Your task to perform on an android device: Open Maps and search for coffee Image 0: 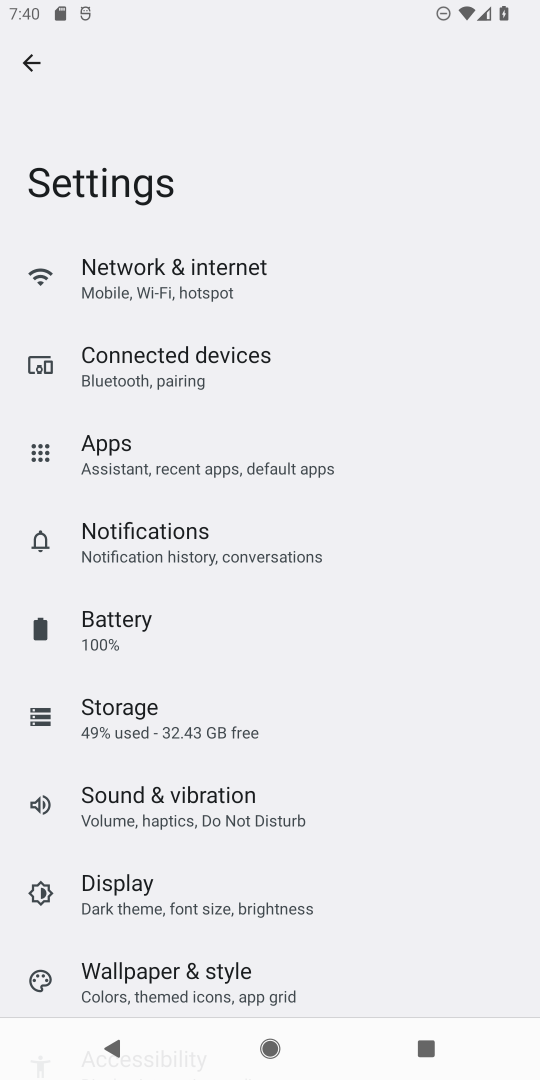
Step 0: press home button
Your task to perform on an android device: Open Maps and search for coffee Image 1: 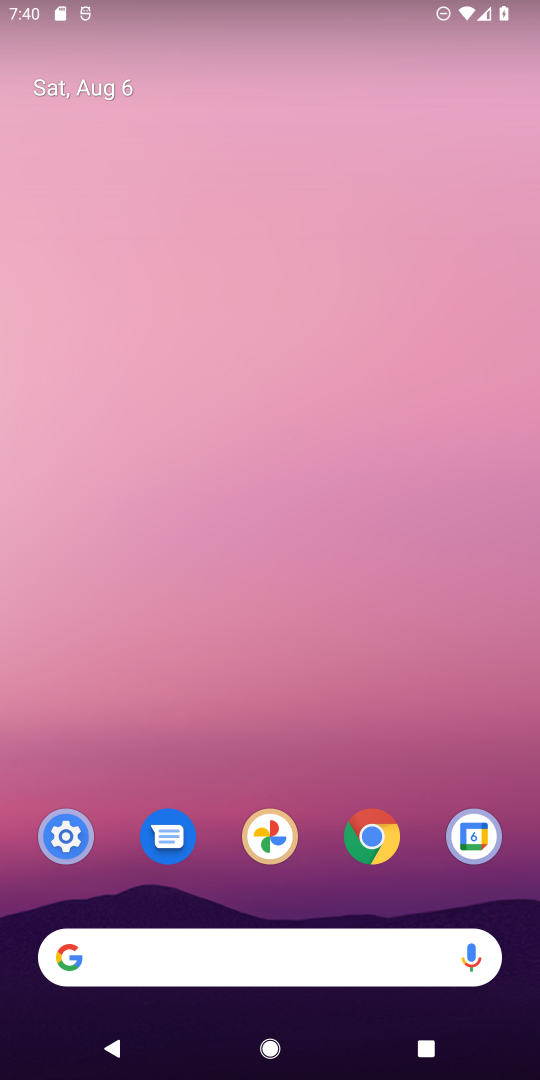
Step 1: drag from (255, 961) to (242, 272)
Your task to perform on an android device: Open Maps and search for coffee Image 2: 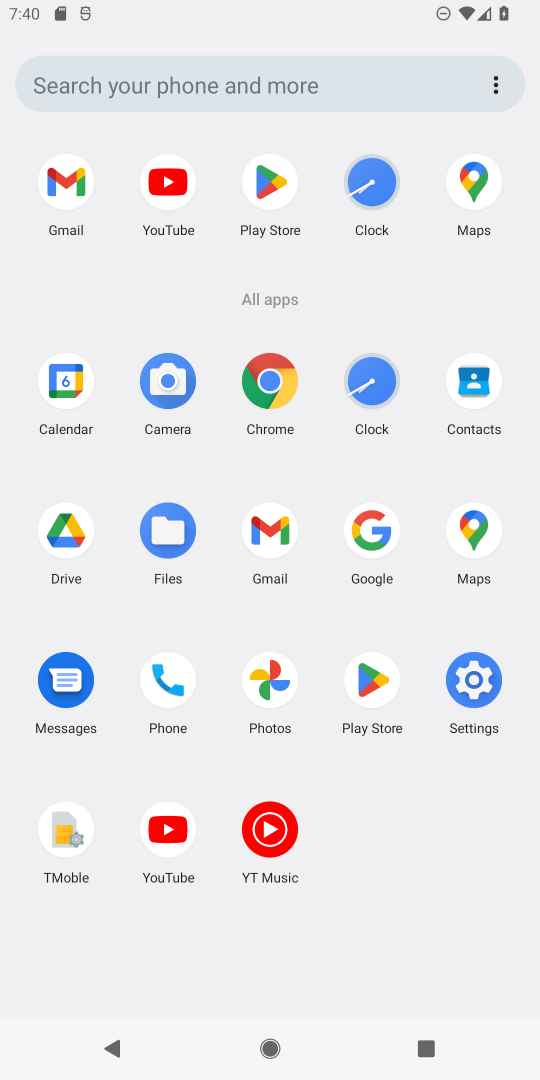
Step 2: click (470, 192)
Your task to perform on an android device: Open Maps and search for coffee Image 3: 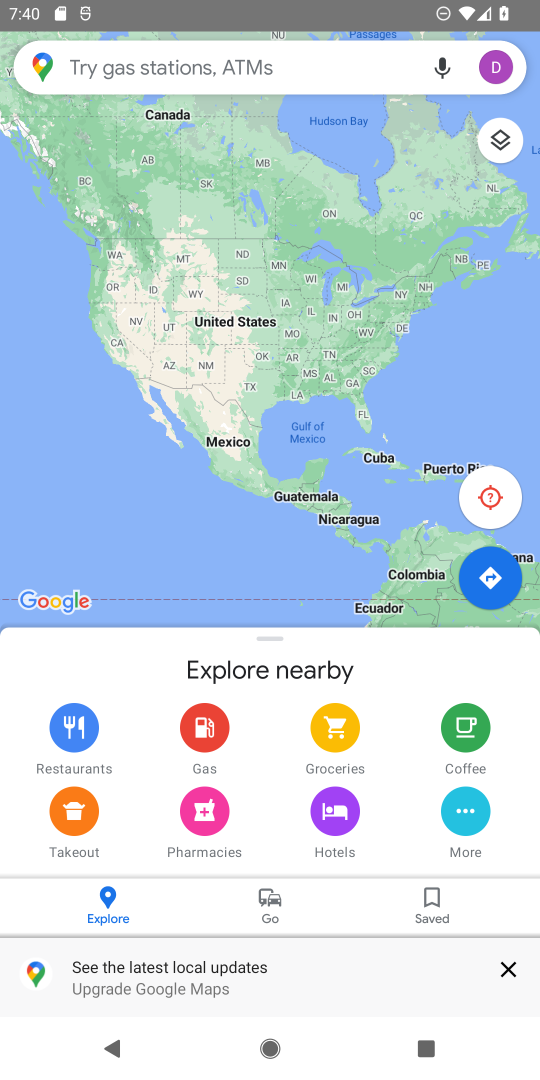
Step 3: click (278, 65)
Your task to perform on an android device: Open Maps and search for coffee Image 4: 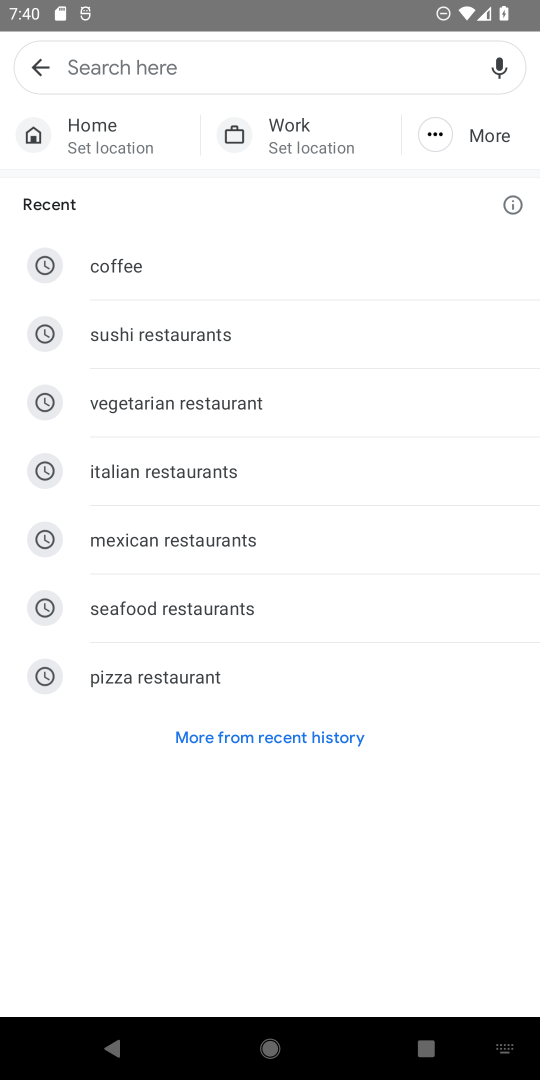
Step 4: click (151, 286)
Your task to perform on an android device: Open Maps and search for coffee Image 5: 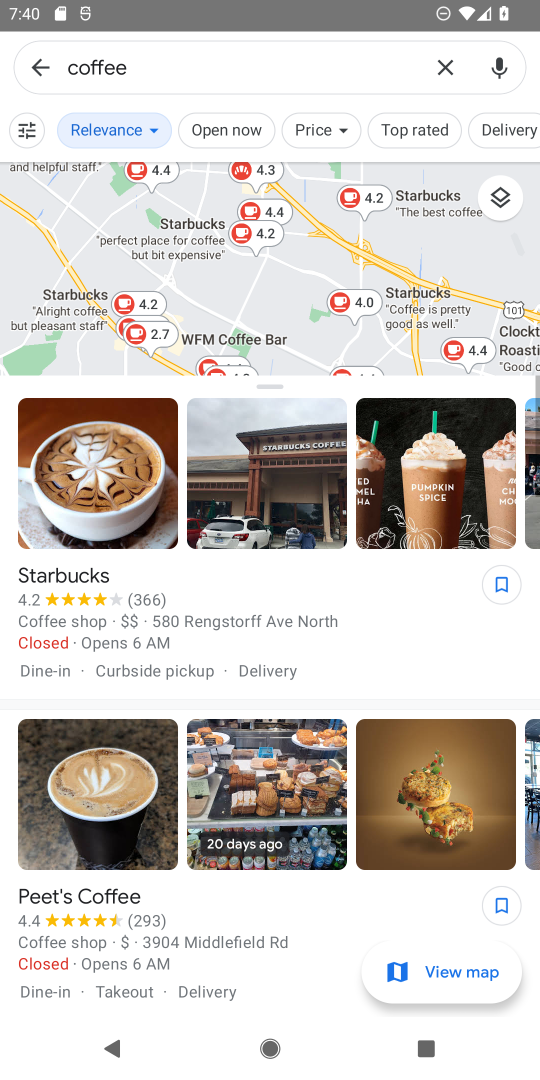
Step 5: task complete